Your task to perform on an android device: Open Android settings Image 0: 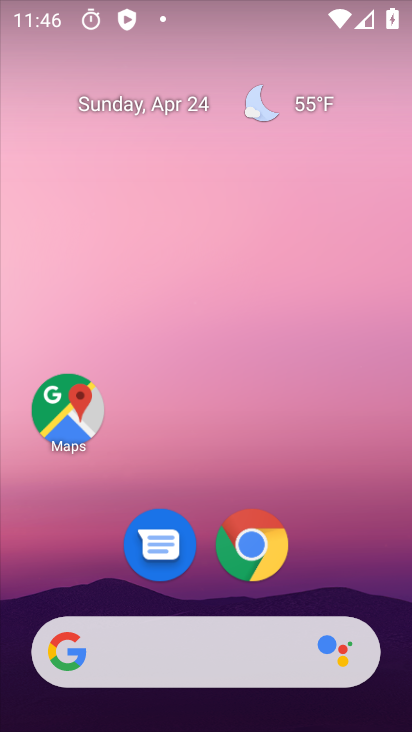
Step 0: drag from (270, 602) to (280, 255)
Your task to perform on an android device: Open Android settings Image 1: 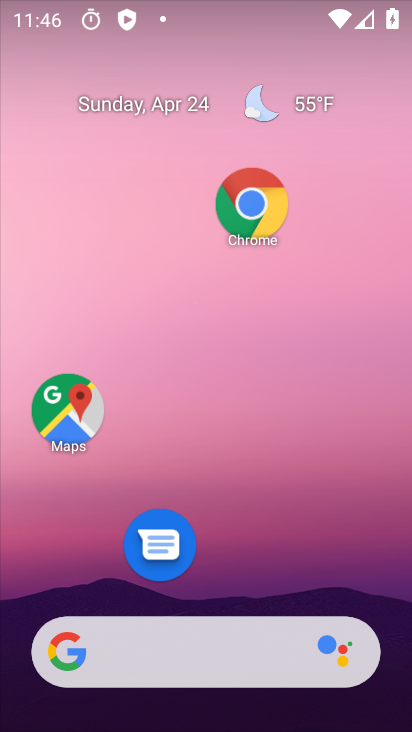
Step 1: drag from (254, 691) to (254, 287)
Your task to perform on an android device: Open Android settings Image 2: 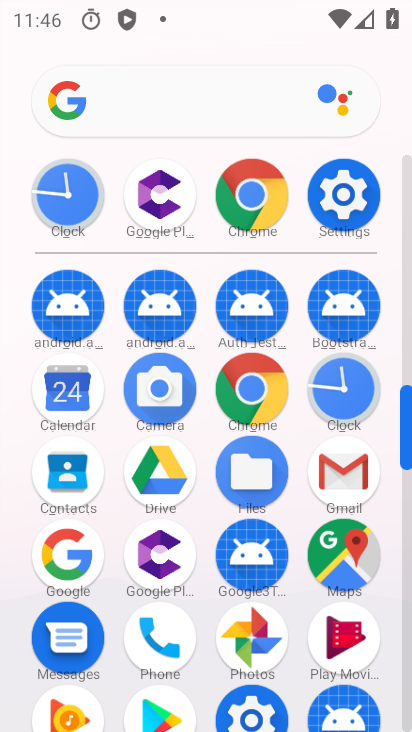
Step 2: click (346, 181)
Your task to perform on an android device: Open Android settings Image 3: 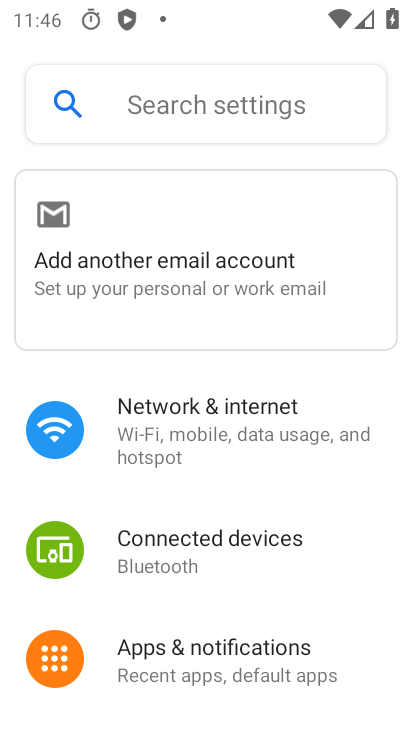
Step 3: click (179, 117)
Your task to perform on an android device: Open Android settings Image 4: 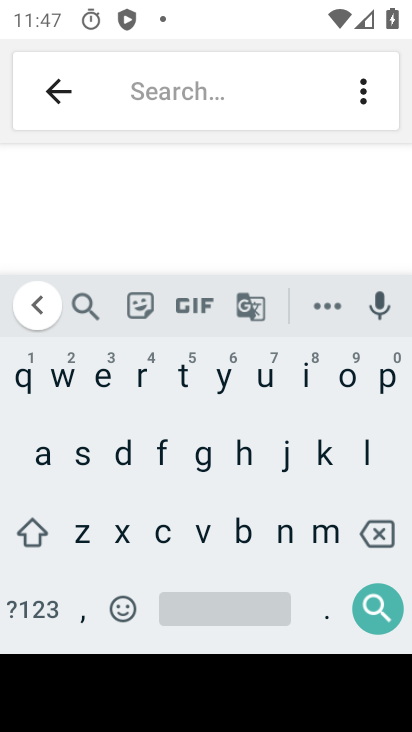
Step 4: click (28, 457)
Your task to perform on an android device: Open Android settings Image 5: 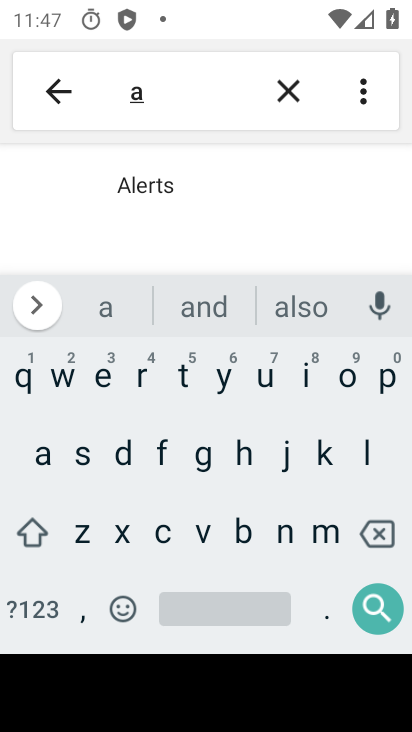
Step 5: click (283, 532)
Your task to perform on an android device: Open Android settings Image 6: 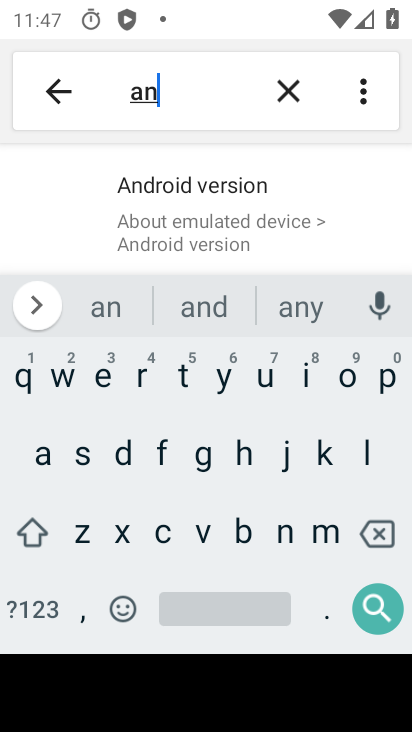
Step 6: click (236, 220)
Your task to perform on an android device: Open Android settings Image 7: 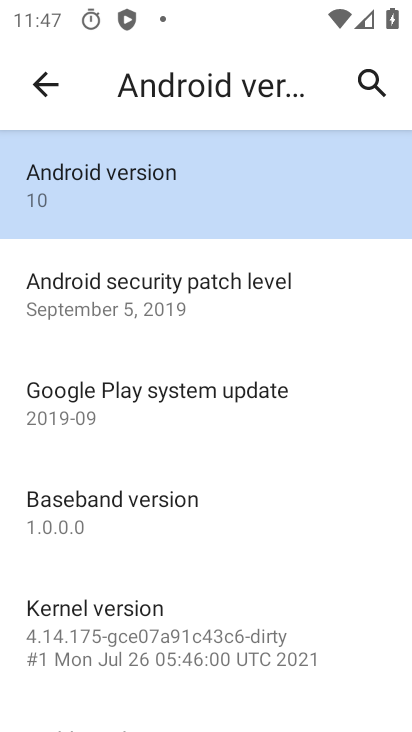
Step 7: click (166, 187)
Your task to perform on an android device: Open Android settings Image 8: 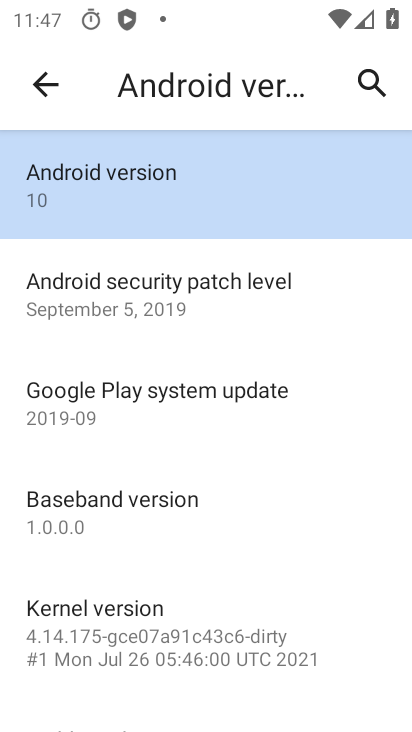
Step 8: task complete